Your task to perform on an android device: turn pop-ups off in chrome Image 0: 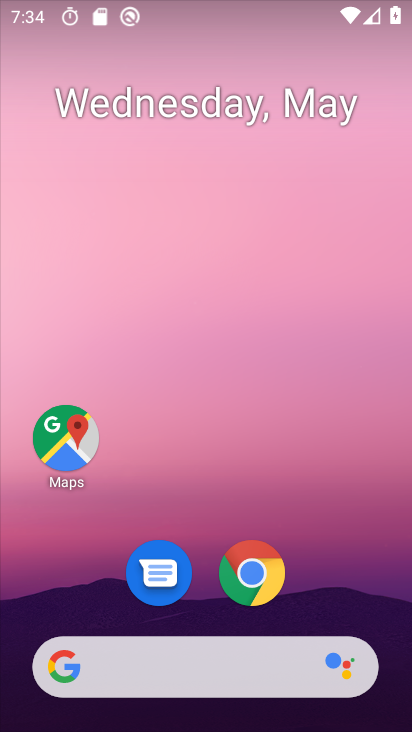
Step 0: click (251, 572)
Your task to perform on an android device: turn pop-ups off in chrome Image 1: 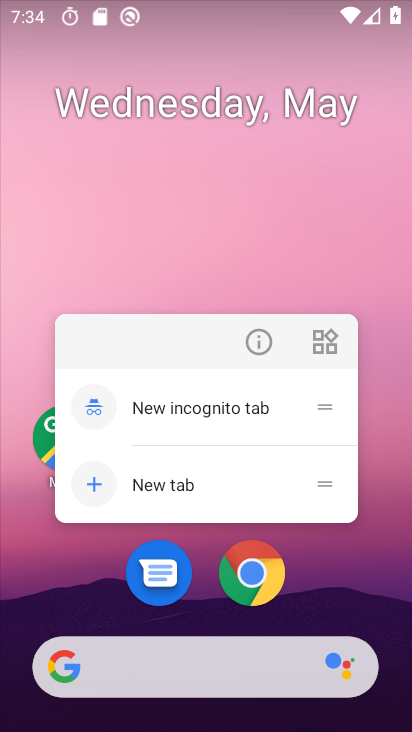
Step 1: click (251, 572)
Your task to perform on an android device: turn pop-ups off in chrome Image 2: 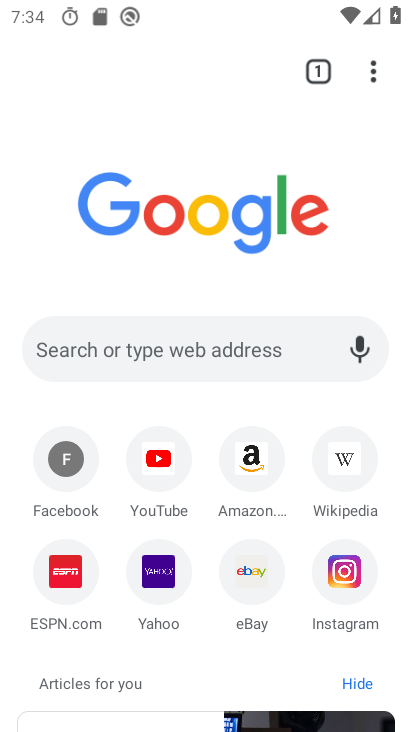
Step 2: click (369, 64)
Your task to perform on an android device: turn pop-ups off in chrome Image 3: 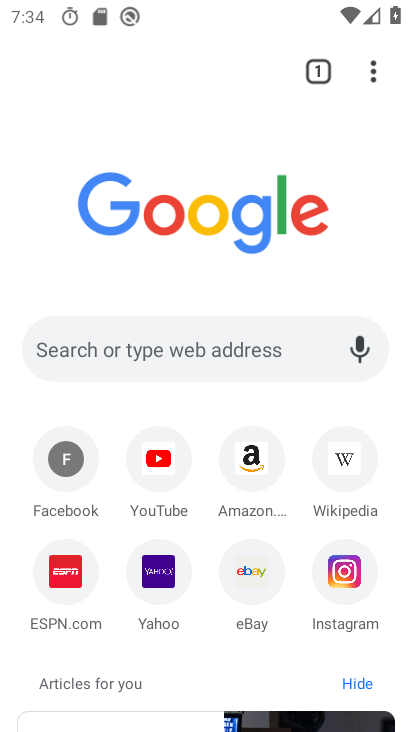
Step 3: click (379, 66)
Your task to perform on an android device: turn pop-ups off in chrome Image 4: 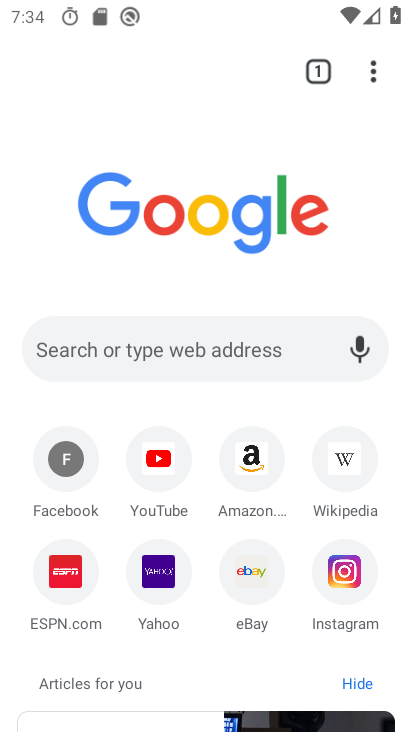
Step 4: click (379, 66)
Your task to perform on an android device: turn pop-ups off in chrome Image 5: 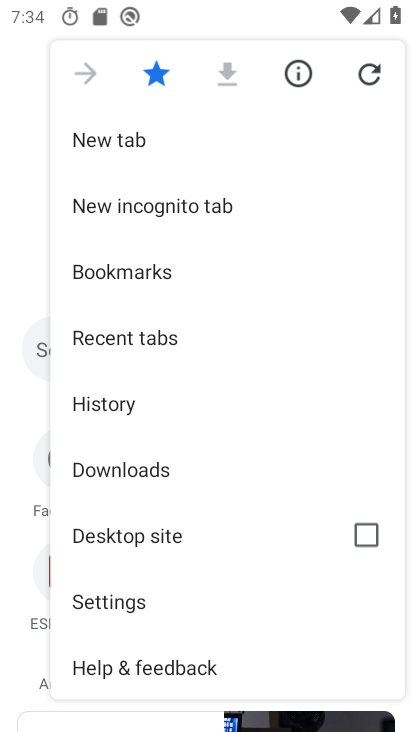
Step 5: click (192, 586)
Your task to perform on an android device: turn pop-ups off in chrome Image 6: 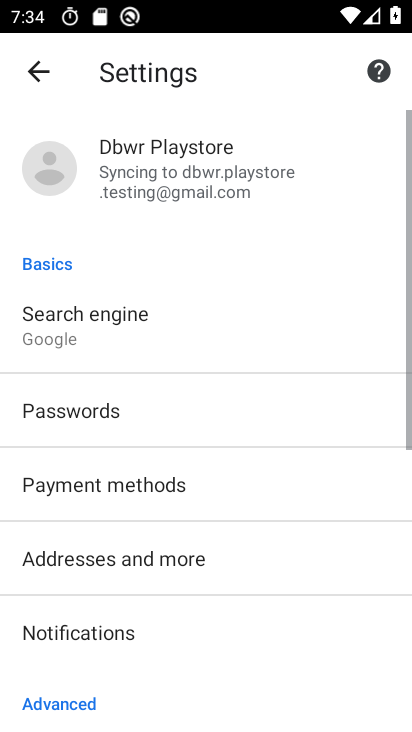
Step 6: drag from (226, 633) to (320, 213)
Your task to perform on an android device: turn pop-ups off in chrome Image 7: 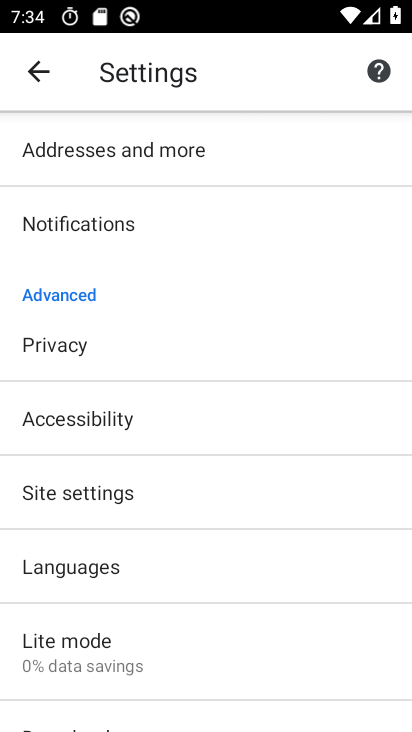
Step 7: click (229, 494)
Your task to perform on an android device: turn pop-ups off in chrome Image 8: 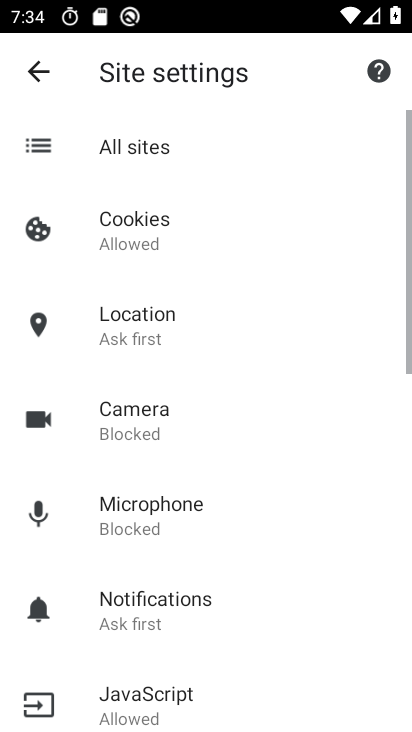
Step 8: drag from (251, 651) to (237, 198)
Your task to perform on an android device: turn pop-ups off in chrome Image 9: 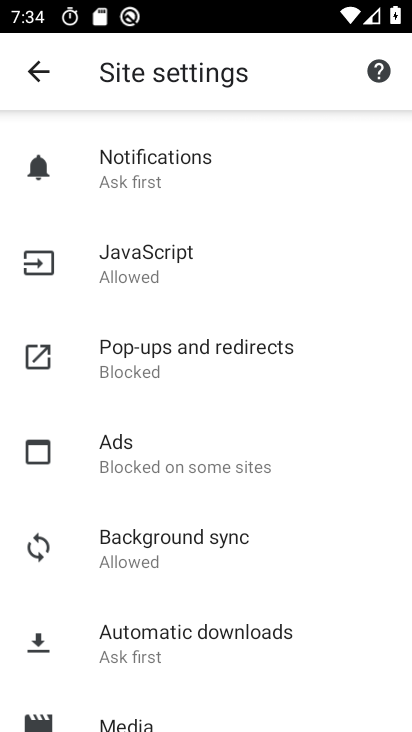
Step 9: click (215, 369)
Your task to perform on an android device: turn pop-ups off in chrome Image 10: 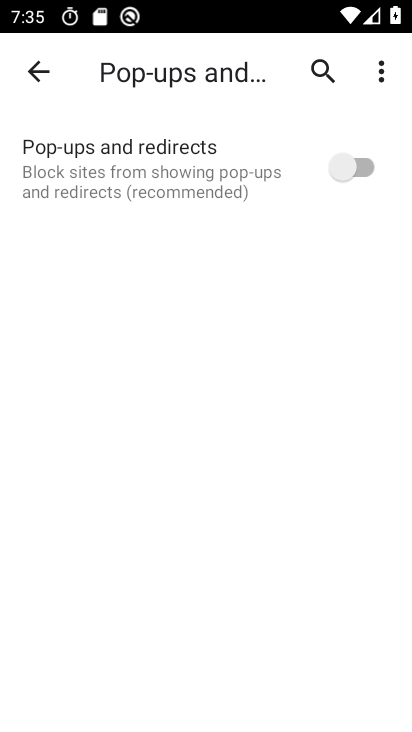
Step 10: task complete